Your task to perform on an android device: set the timer Image 0: 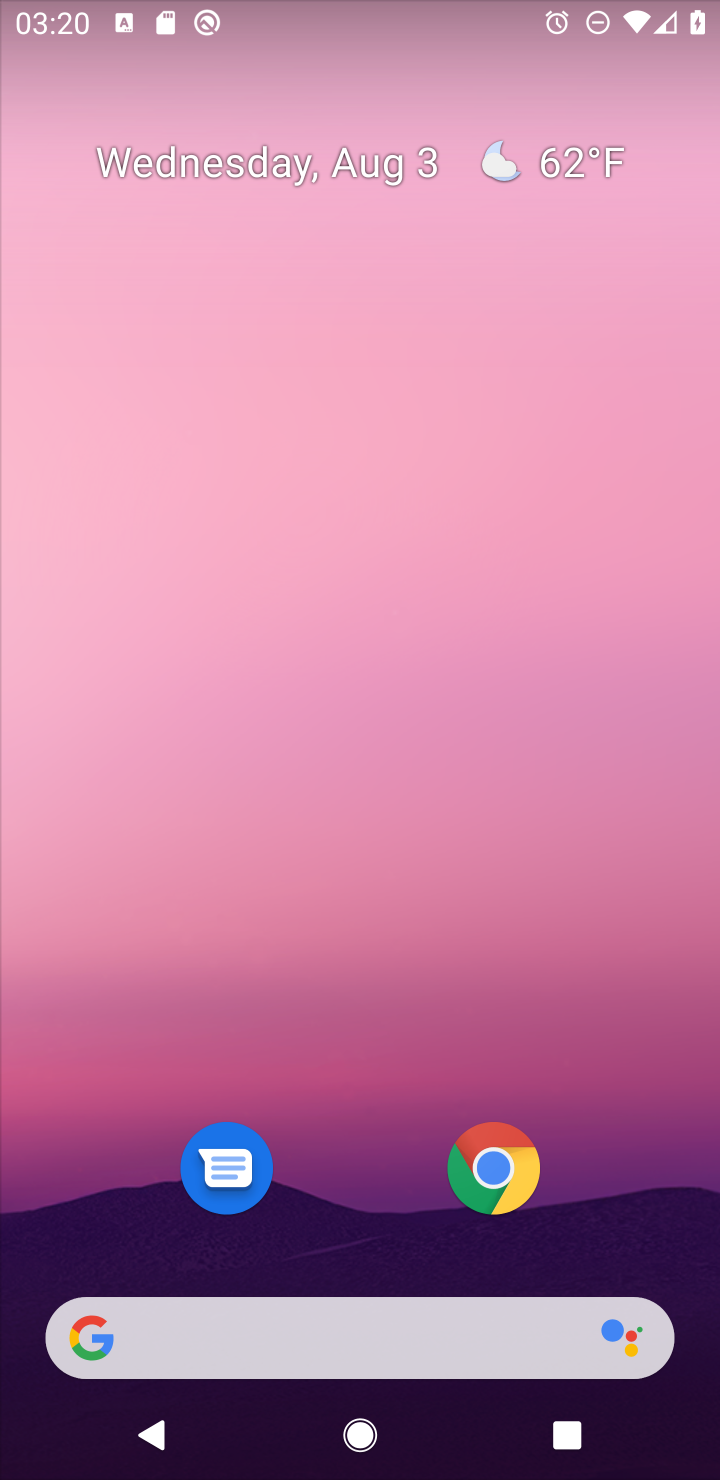
Step 0: drag from (651, 1247) to (560, 301)
Your task to perform on an android device: set the timer Image 1: 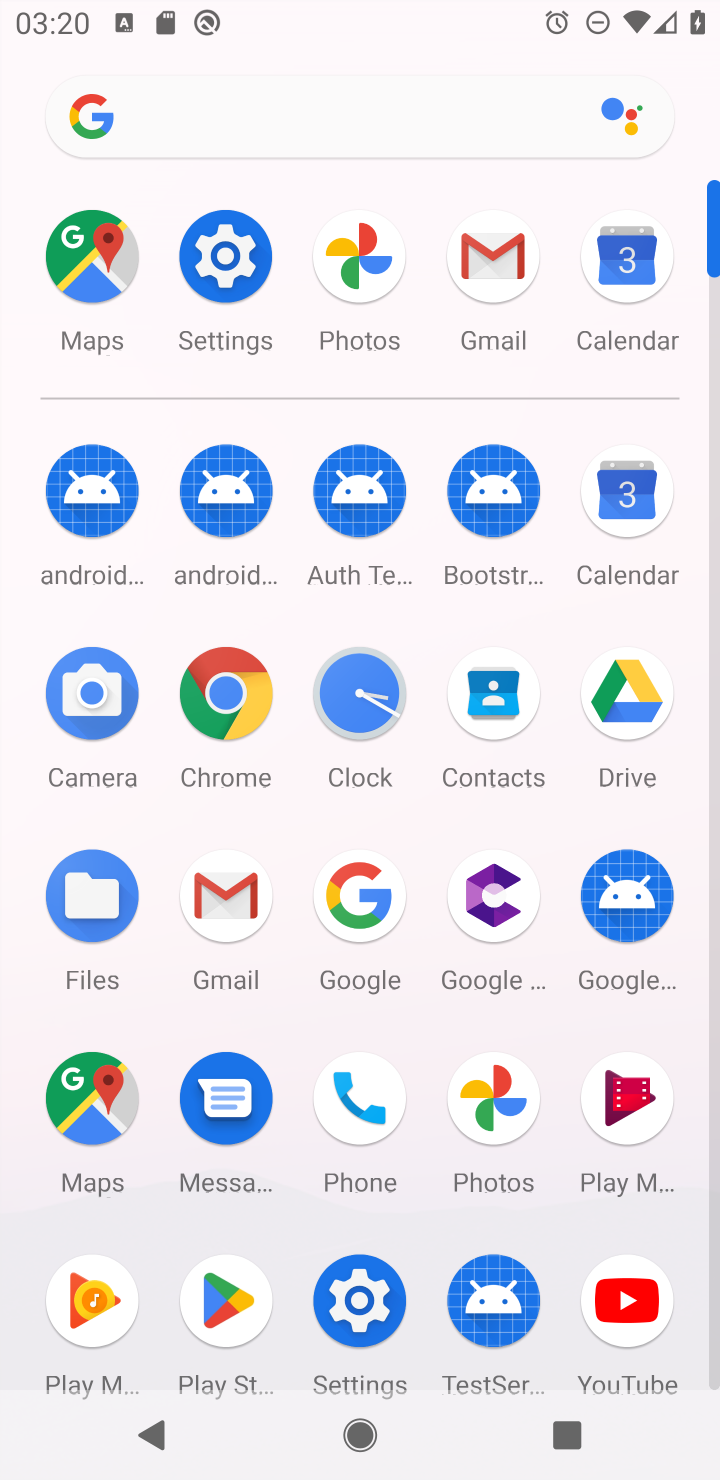
Step 1: click (349, 700)
Your task to perform on an android device: set the timer Image 2: 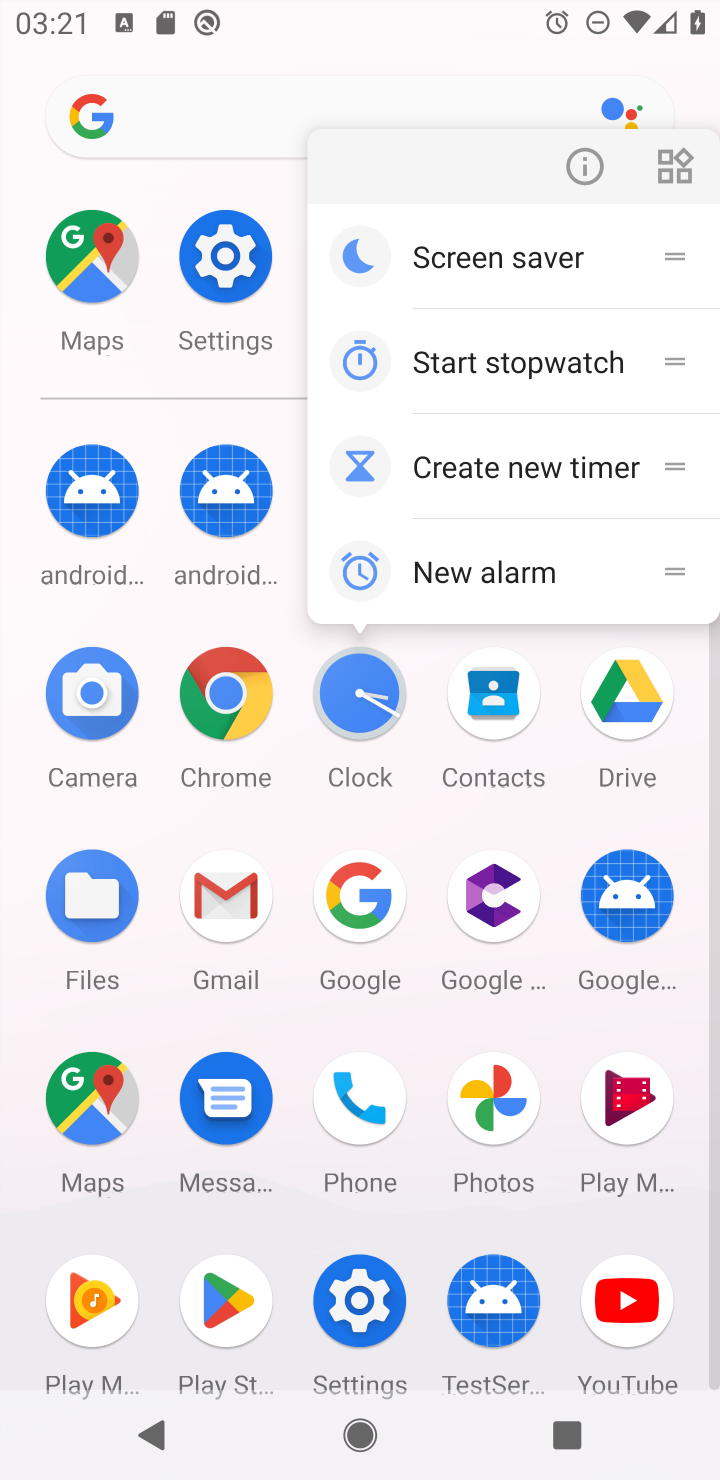
Step 2: click (359, 698)
Your task to perform on an android device: set the timer Image 3: 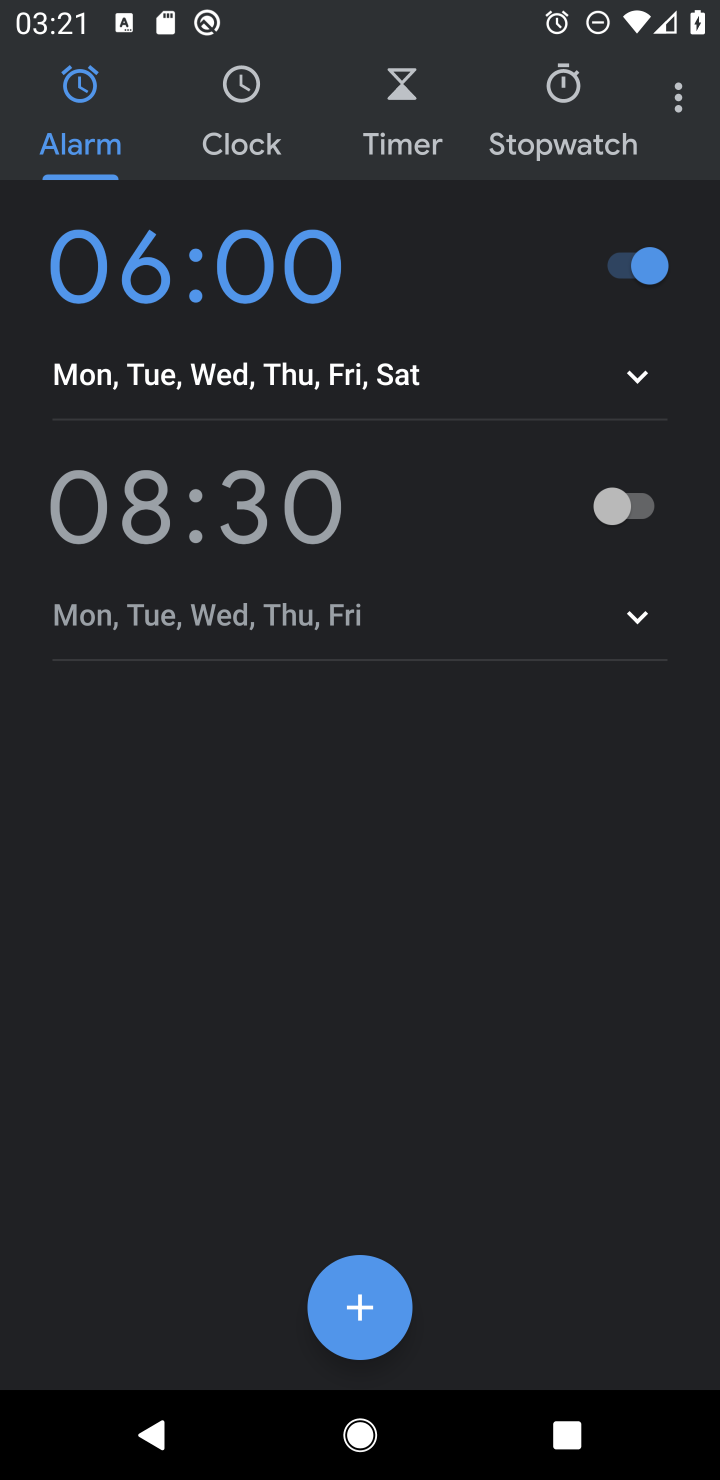
Step 3: click (396, 91)
Your task to perform on an android device: set the timer Image 4: 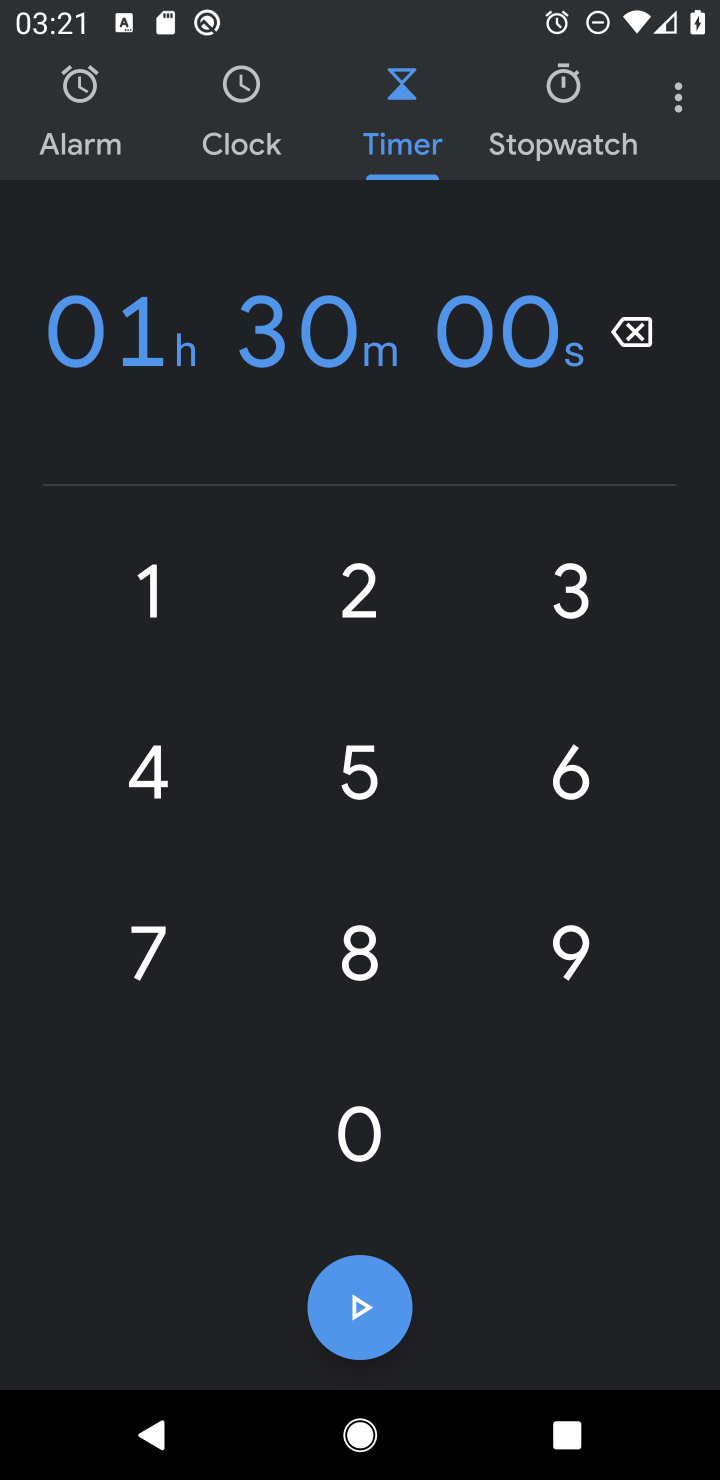
Step 4: task complete